Your task to perform on an android device: Turn off the flashlight Image 0: 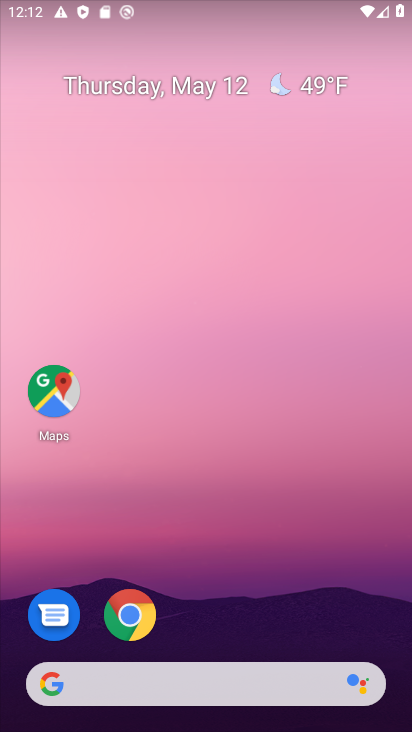
Step 0: drag from (267, 695) to (369, 404)
Your task to perform on an android device: Turn off the flashlight Image 1: 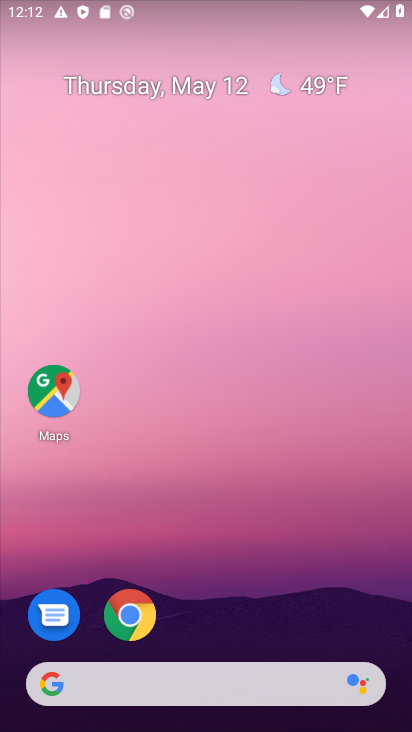
Step 1: drag from (265, 706) to (338, 333)
Your task to perform on an android device: Turn off the flashlight Image 2: 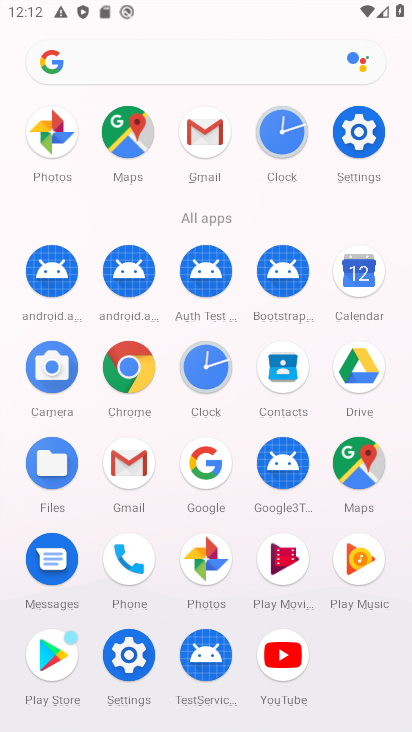
Step 2: click (148, 639)
Your task to perform on an android device: Turn off the flashlight Image 3: 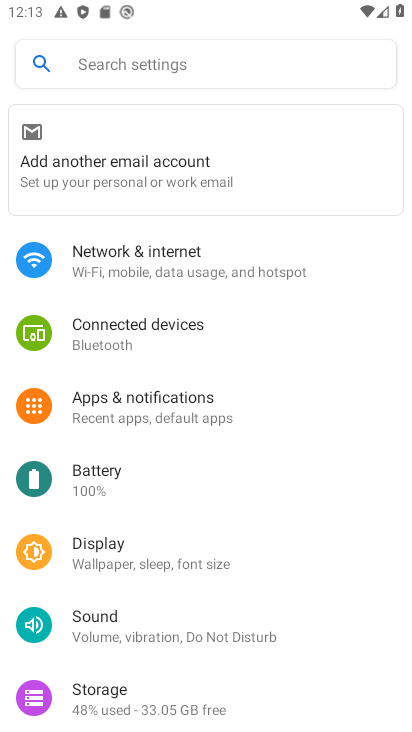
Step 3: click (166, 56)
Your task to perform on an android device: Turn off the flashlight Image 4: 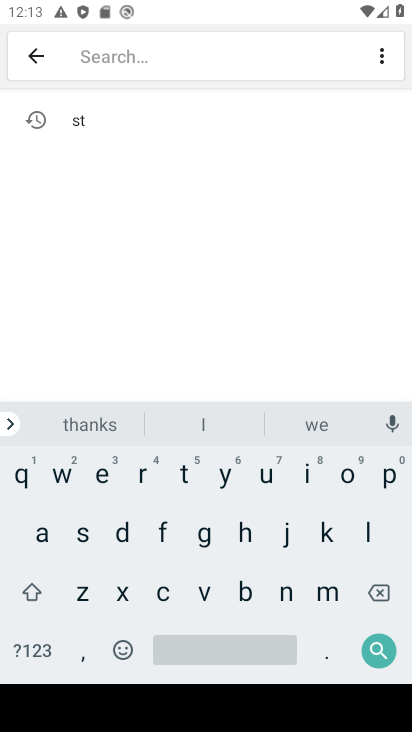
Step 4: click (165, 528)
Your task to perform on an android device: Turn off the flashlight Image 5: 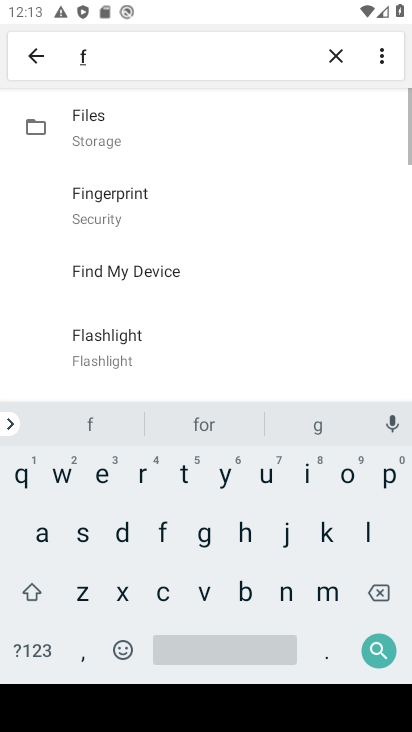
Step 5: click (369, 535)
Your task to perform on an android device: Turn off the flashlight Image 6: 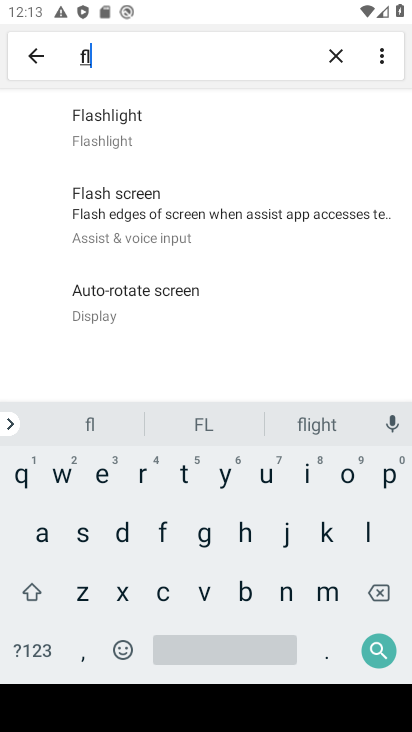
Step 6: click (130, 132)
Your task to perform on an android device: Turn off the flashlight Image 7: 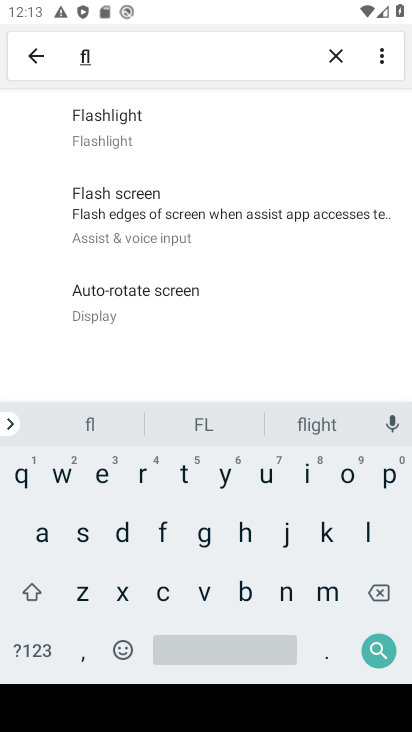
Step 7: click (268, 133)
Your task to perform on an android device: Turn off the flashlight Image 8: 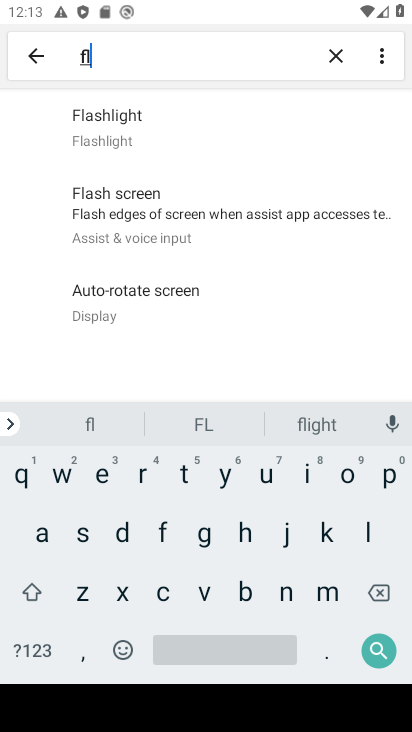
Step 8: task complete